Your task to perform on an android device: toggle priority inbox in the gmail app Image 0: 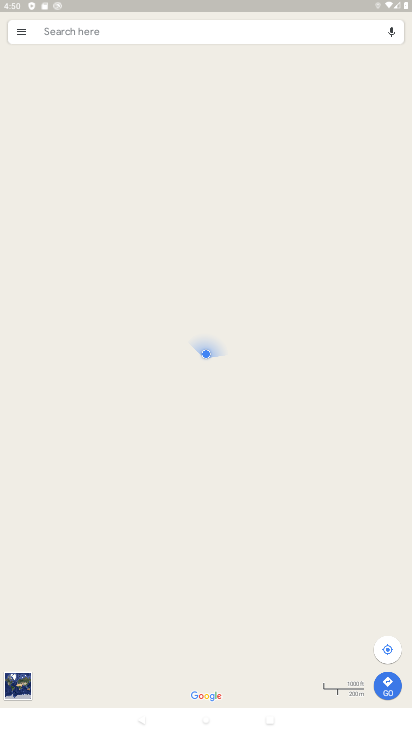
Step 0: press home button
Your task to perform on an android device: toggle priority inbox in the gmail app Image 1: 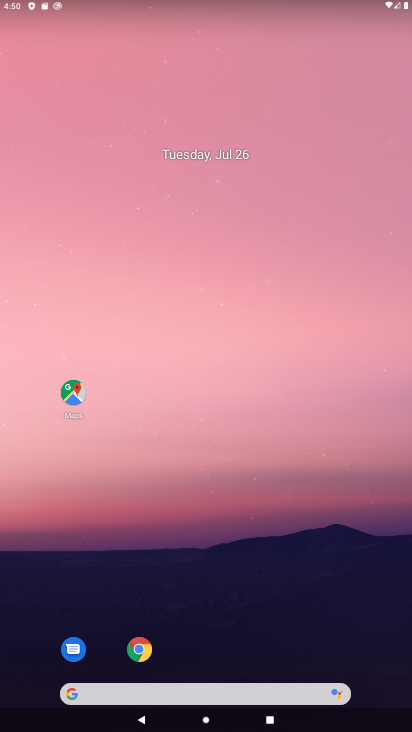
Step 1: drag from (228, 593) to (399, 332)
Your task to perform on an android device: toggle priority inbox in the gmail app Image 2: 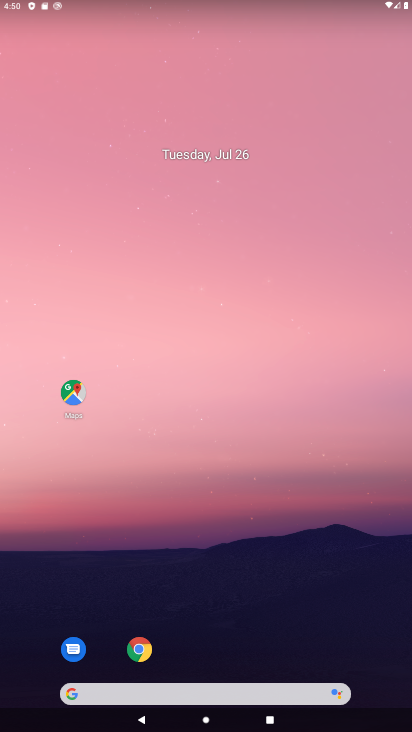
Step 2: drag from (377, 664) to (327, 0)
Your task to perform on an android device: toggle priority inbox in the gmail app Image 3: 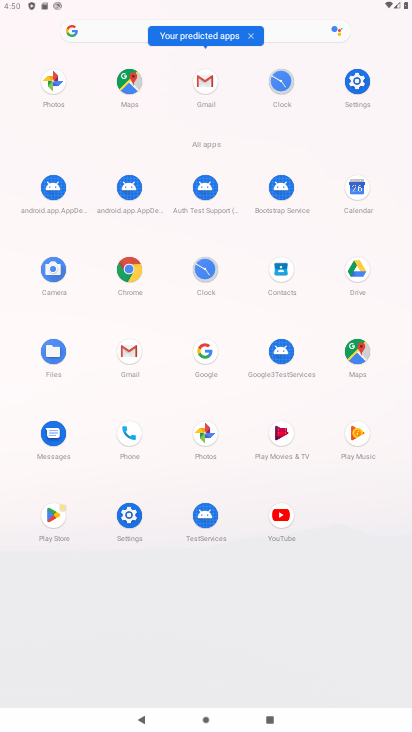
Step 3: click (126, 360)
Your task to perform on an android device: toggle priority inbox in the gmail app Image 4: 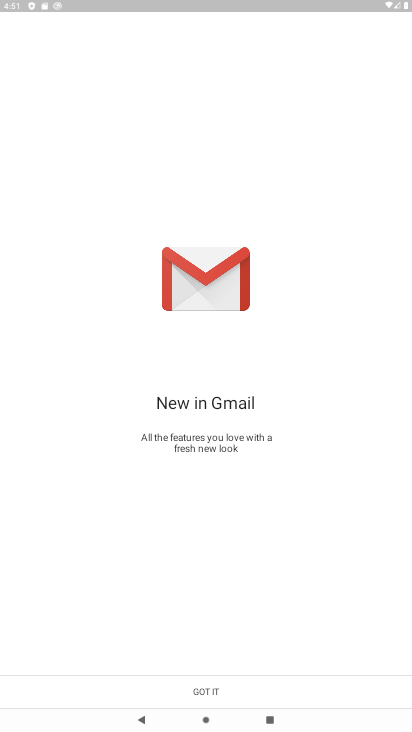
Step 4: click (242, 687)
Your task to perform on an android device: toggle priority inbox in the gmail app Image 5: 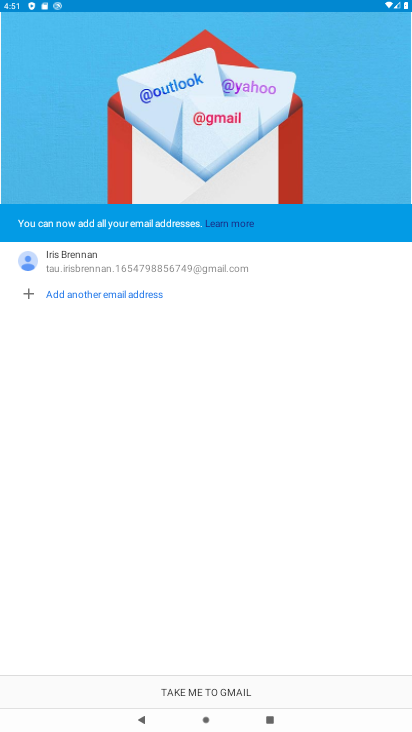
Step 5: click (206, 690)
Your task to perform on an android device: toggle priority inbox in the gmail app Image 6: 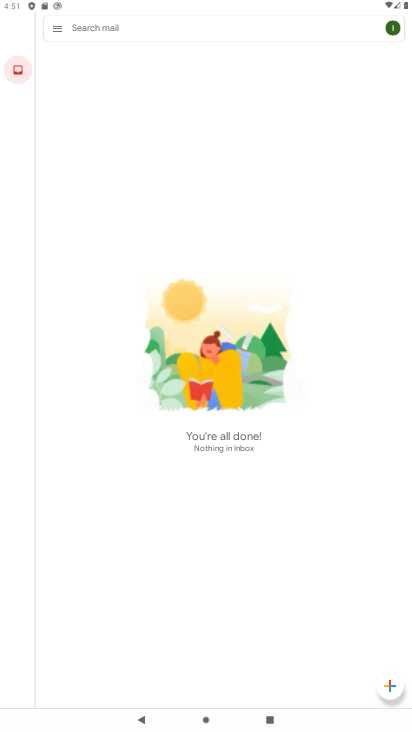
Step 6: click (58, 27)
Your task to perform on an android device: toggle priority inbox in the gmail app Image 7: 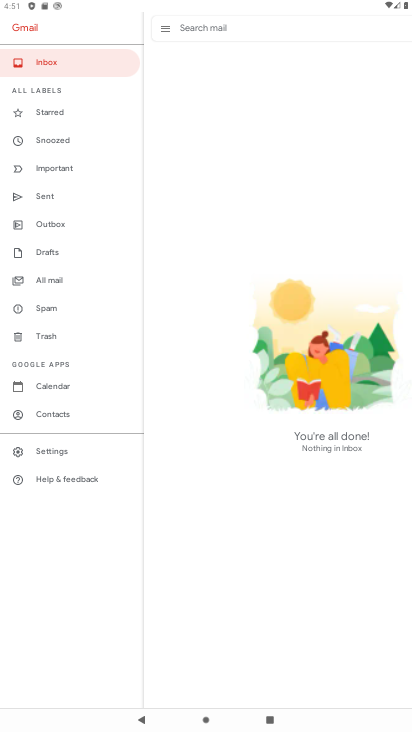
Step 7: click (57, 451)
Your task to perform on an android device: toggle priority inbox in the gmail app Image 8: 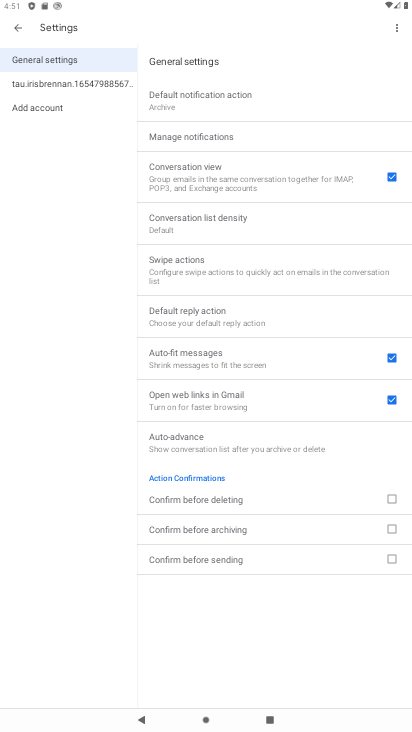
Step 8: click (100, 82)
Your task to perform on an android device: toggle priority inbox in the gmail app Image 9: 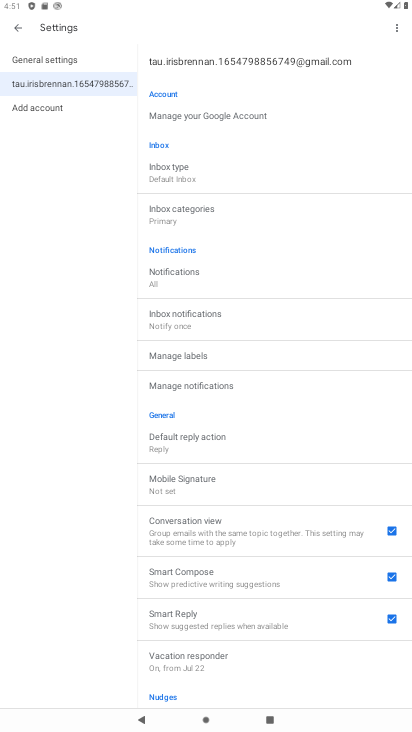
Step 9: click (276, 179)
Your task to perform on an android device: toggle priority inbox in the gmail app Image 10: 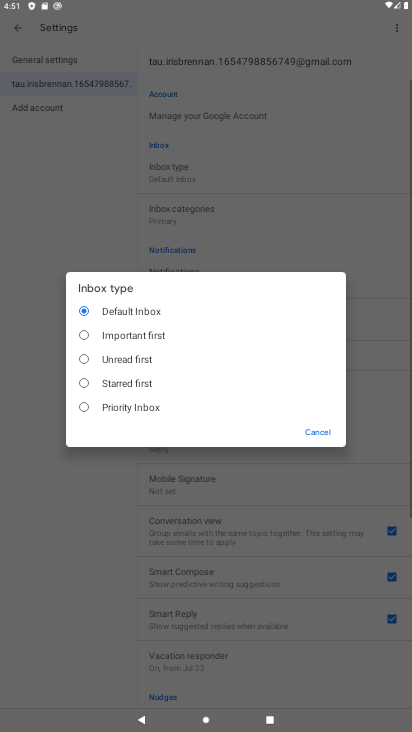
Step 10: click (248, 413)
Your task to perform on an android device: toggle priority inbox in the gmail app Image 11: 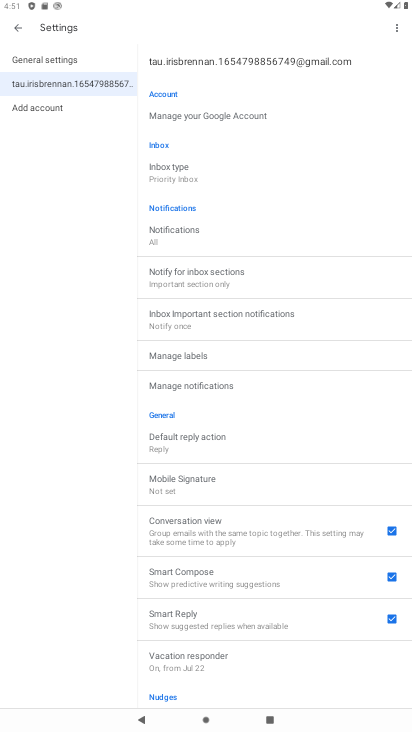
Step 11: task complete